Your task to perform on an android device: change keyboard looks Image 0: 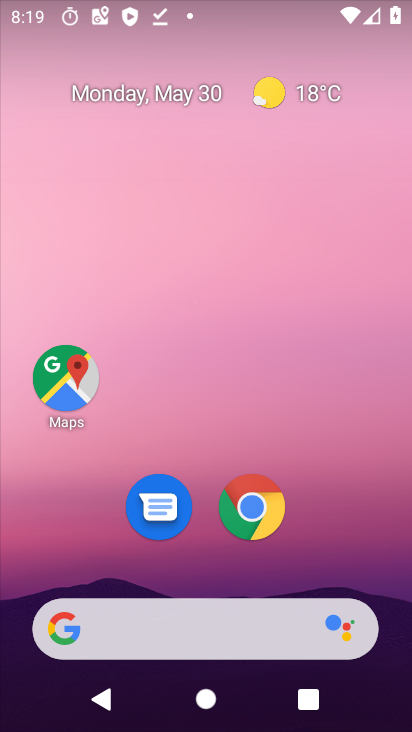
Step 0: drag from (307, 513) to (256, 97)
Your task to perform on an android device: change keyboard looks Image 1: 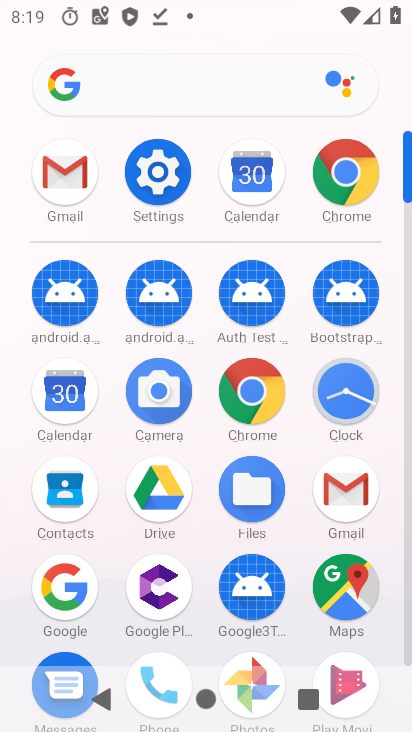
Step 1: click (144, 201)
Your task to perform on an android device: change keyboard looks Image 2: 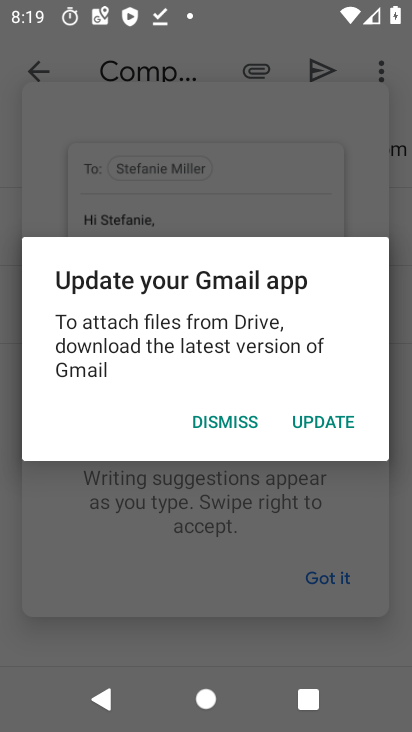
Step 2: press home button
Your task to perform on an android device: change keyboard looks Image 3: 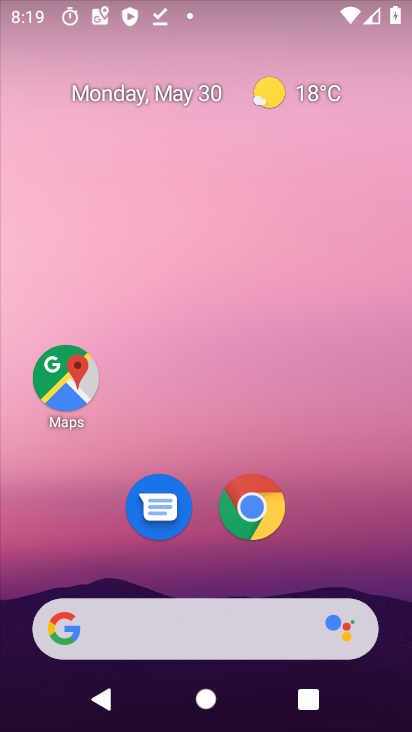
Step 3: drag from (336, 523) to (306, 167)
Your task to perform on an android device: change keyboard looks Image 4: 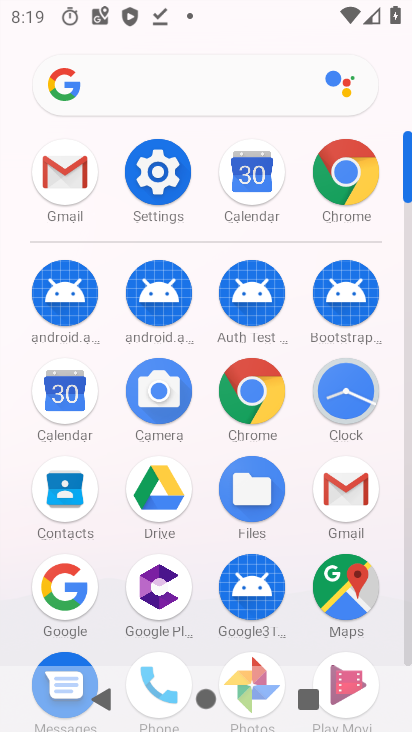
Step 4: click (131, 167)
Your task to perform on an android device: change keyboard looks Image 5: 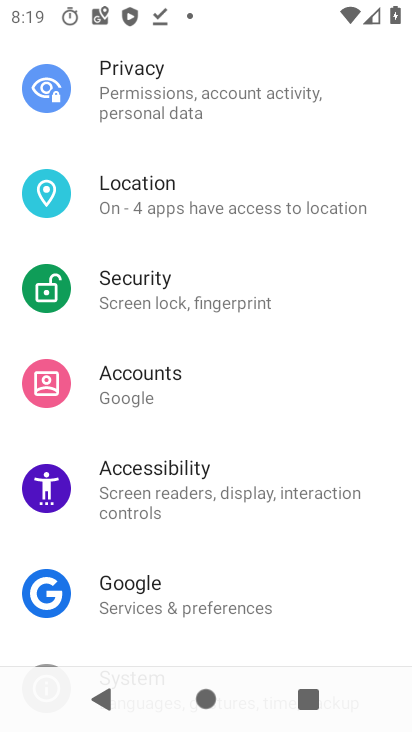
Step 5: drag from (285, 586) to (256, 176)
Your task to perform on an android device: change keyboard looks Image 6: 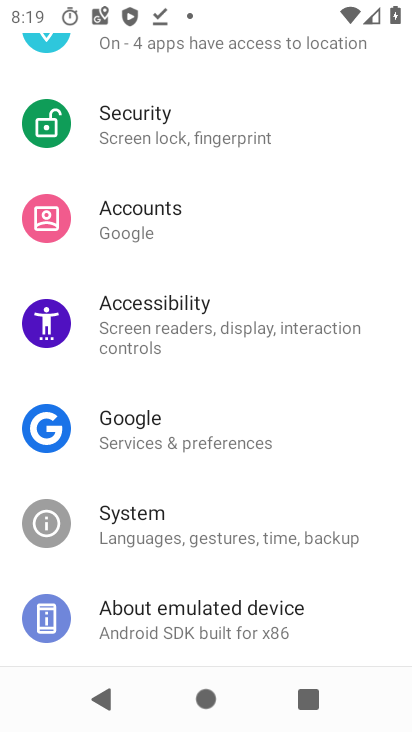
Step 6: click (271, 553)
Your task to perform on an android device: change keyboard looks Image 7: 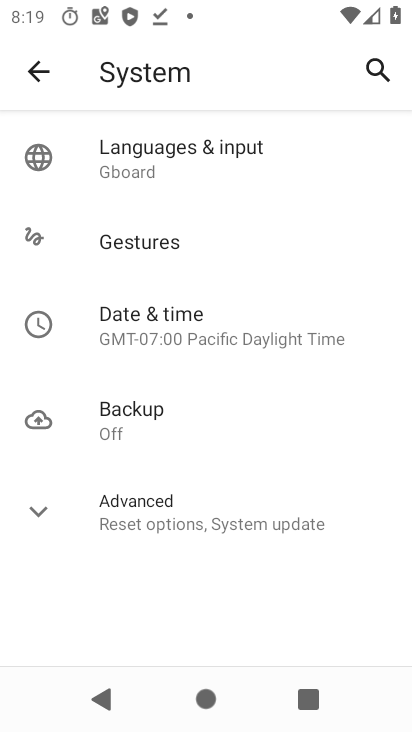
Step 7: click (183, 173)
Your task to perform on an android device: change keyboard looks Image 8: 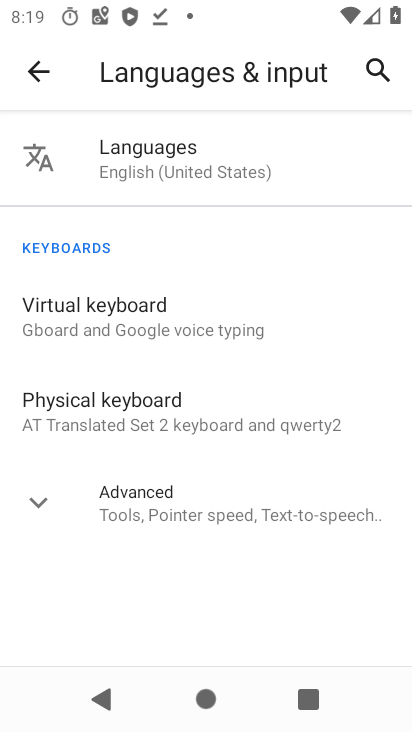
Step 8: click (134, 338)
Your task to perform on an android device: change keyboard looks Image 9: 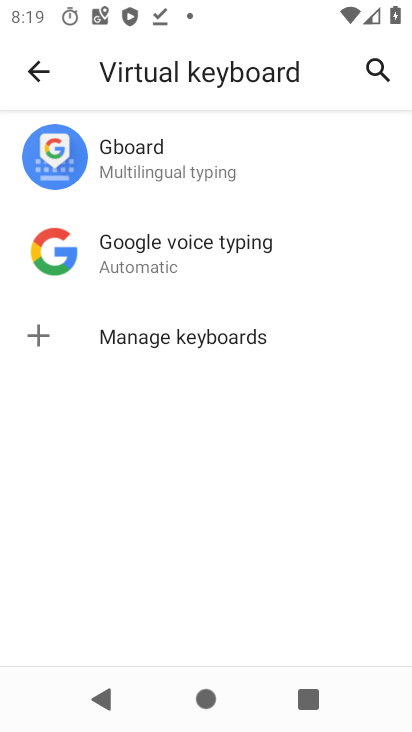
Step 9: click (178, 145)
Your task to perform on an android device: change keyboard looks Image 10: 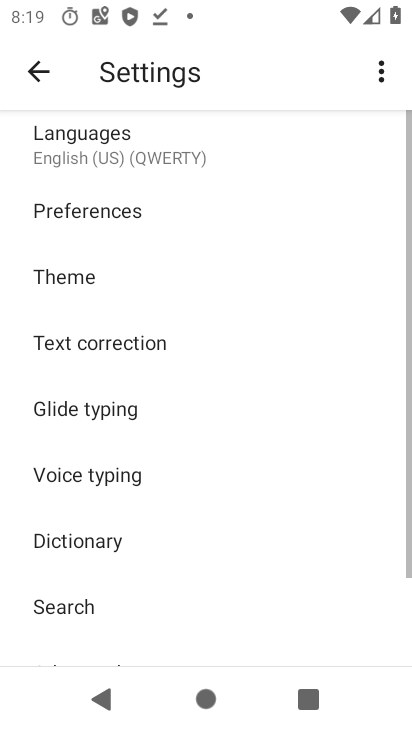
Step 10: click (103, 285)
Your task to perform on an android device: change keyboard looks Image 11: 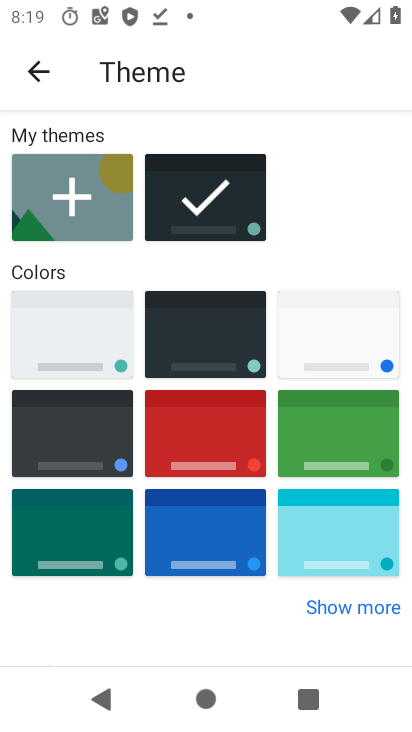
Step 11: click (355, 543)
Your task to perform on an android device: change keyboard looks Image 12: 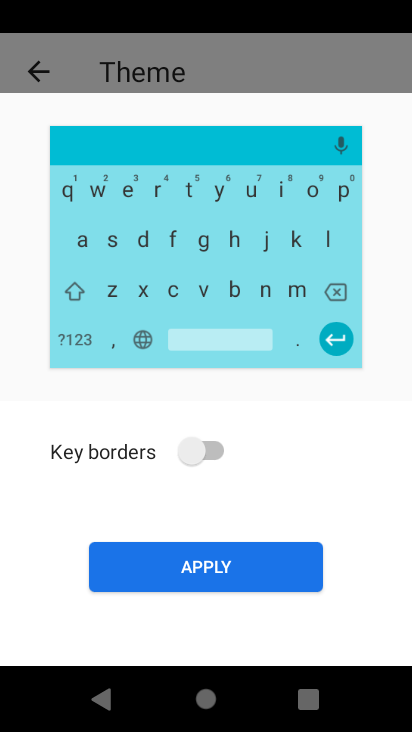
Step 12: click (224, 562)
Your task to perform on an android device: change keyboard looks Image 13: 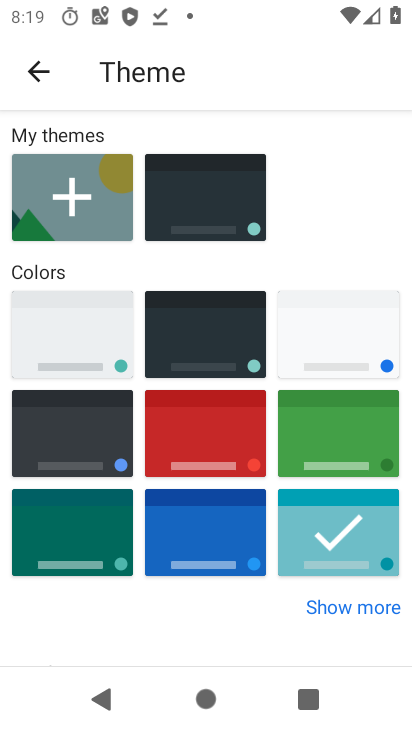
Step 13: task complete